Your task to perform on an android device: change the clock display to show seconds Image 0: 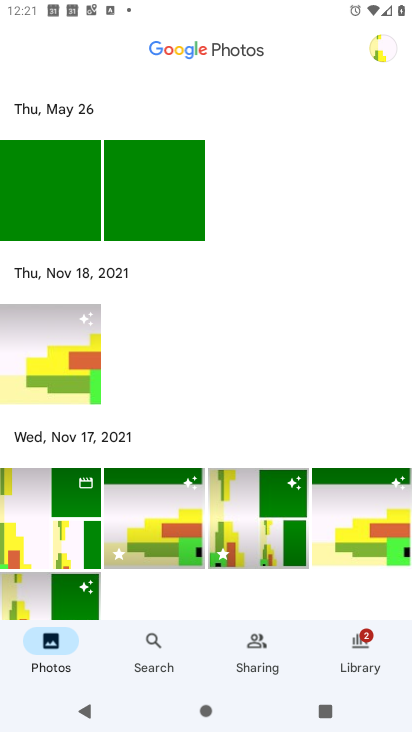
Step 0: press home button
Your task to perform on an android device: change the clock display to show seconds Image 1: 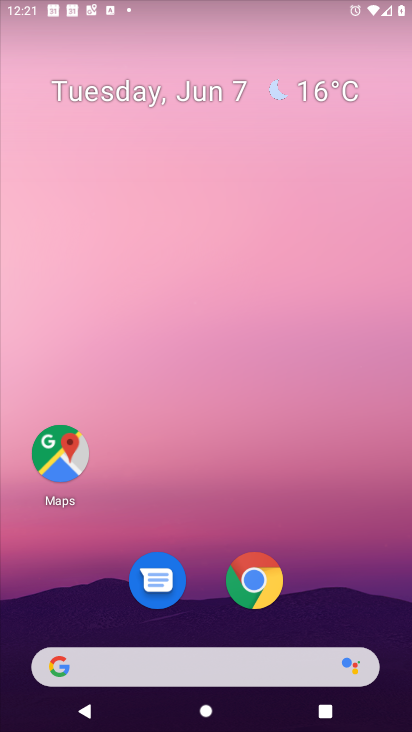
Step 1: drag from (362, 546) to (342, 36)
Your task to perform on an android device: change the clock display to show seconds Image 2: 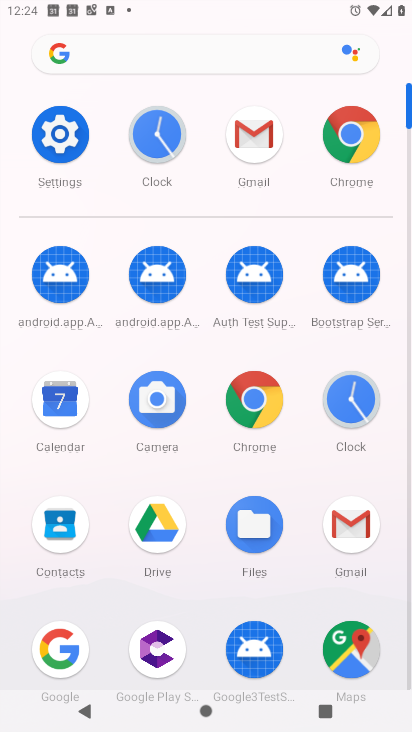
Step 2: click (360, 395)
Your task to perform on an android device: change the clock display to show seconds Image 3: 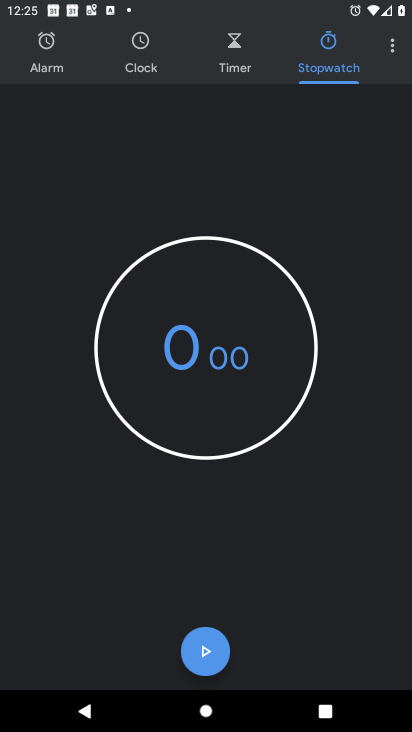
Step 3: click (400, 46)
Your task to perform on an android device: change the clock display to show seconds Image 4: 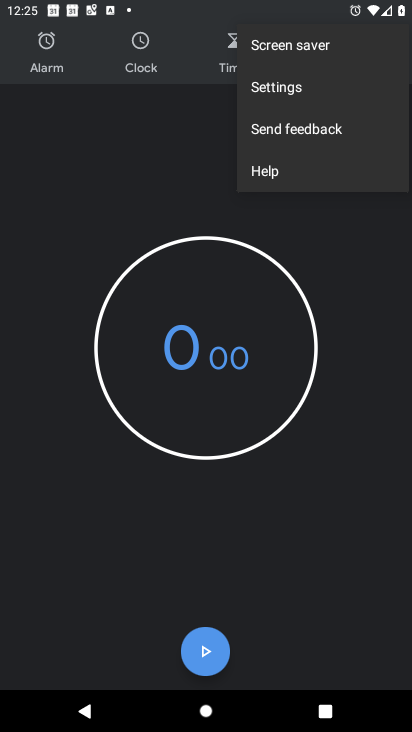
Step 4: click (260, 100)
Your task to perform on an android device: change the clock display to show seconds Image 5: 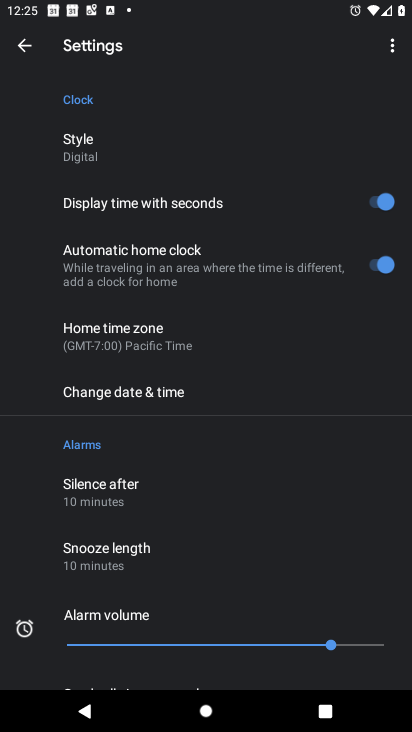
Step 5: task complete